Your task to perform on an android device: Go to accessibility settings Image 0: 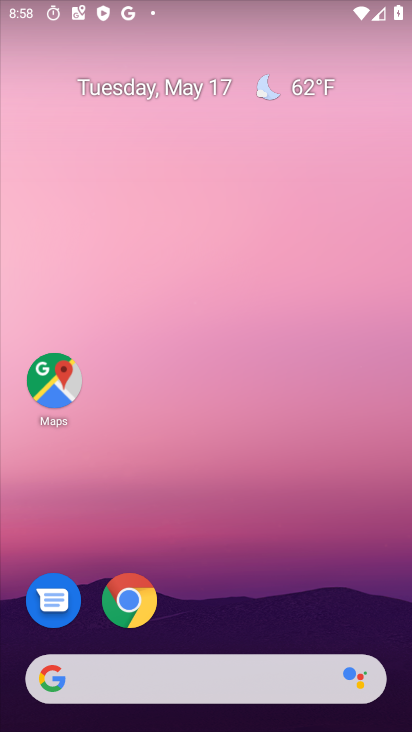
Step 0: drag from (203, 718) to (188, 169)
Your task to perform on an android device: Go to accessibility settings Image 1: 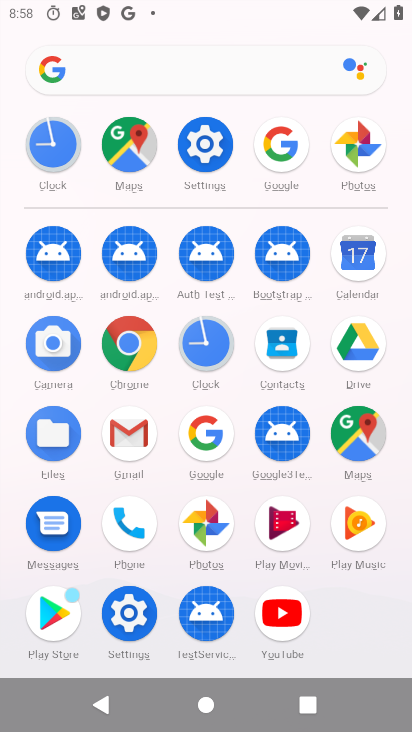
Step 1: click (195, 141)
Your task to perform on an android device: Go to accessibility settings Image 2: 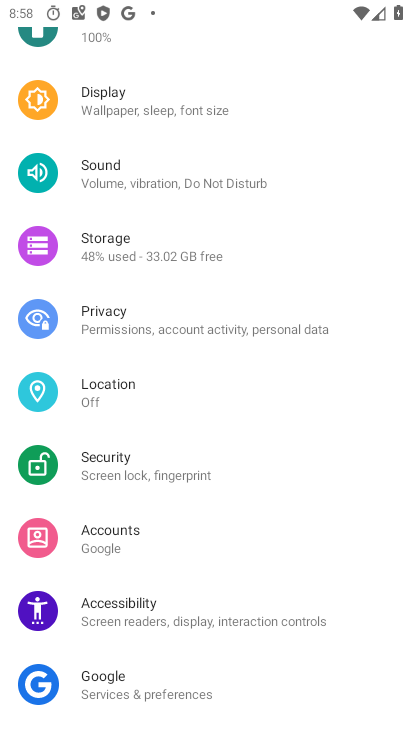
Step 2: click (120, 606)
Your task to perform on an android device: Go to accessibility settings Image 3: 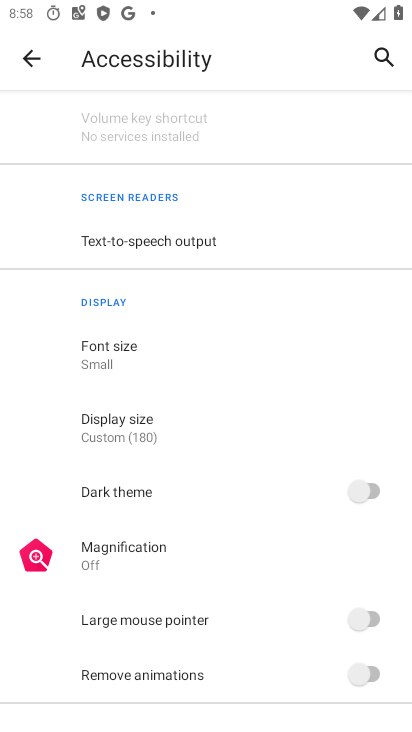
Step 3: task complete